Your task to perform on an android device: stop showing notifications on the lock screen Image 0: 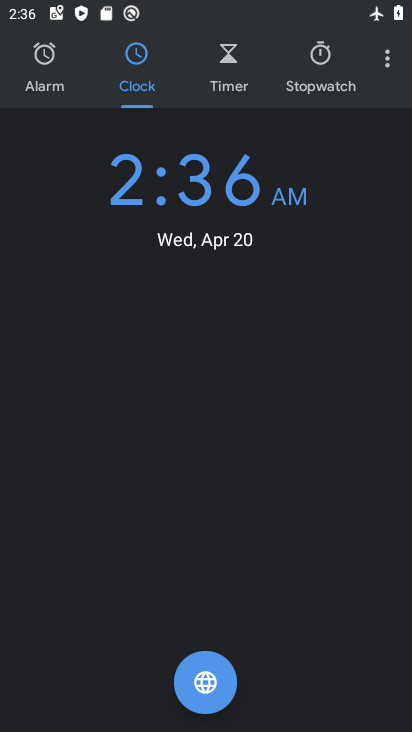
Step 0: press home button
Your task to perform on an android device: stop showing notifications on the lock screen Image 1: 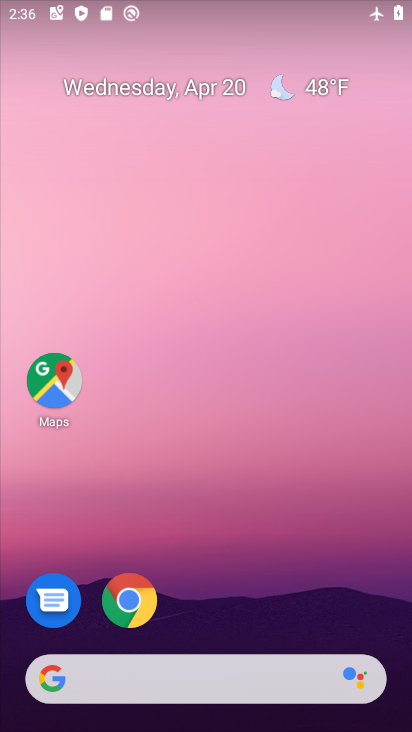
Step 1: drag from (331, 527) to (392, 69)
Your task to perform on an android device: stop showing notifications on the lock screen Image 2: 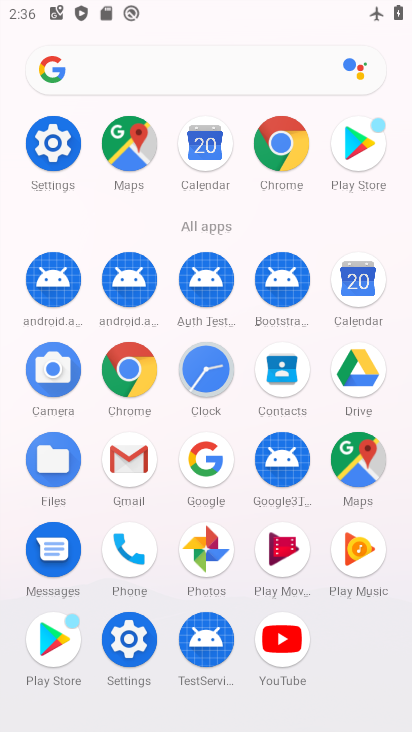
Step 2: click (47, 156)
Your task to perform on an android device: stop showing notifications on the lock screen Image 3: 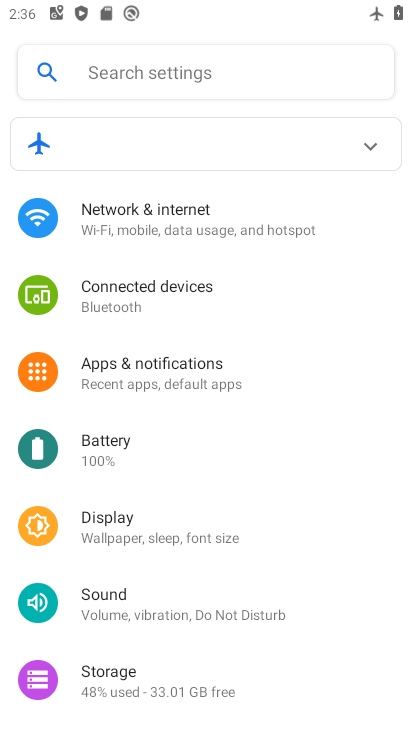
Step 3: click (209, 363)
Your task to perform on an android device: stop showing notifications on the lock screen Image 4: 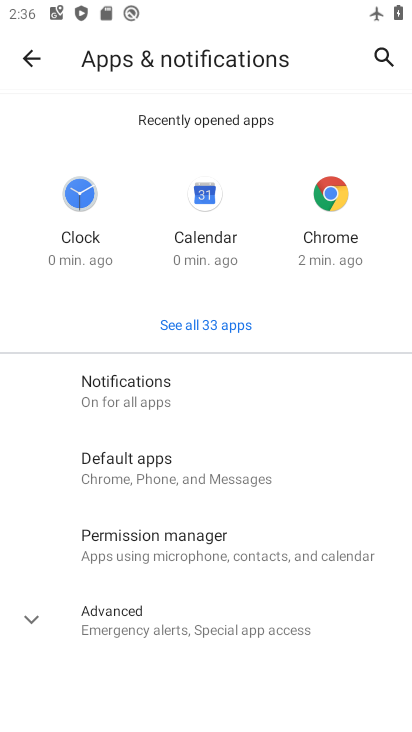
Step 4: drag from (201, 567) to (215, 329)
Your task to perform on an android device: stop showing notifications on the lock screen Image 5: 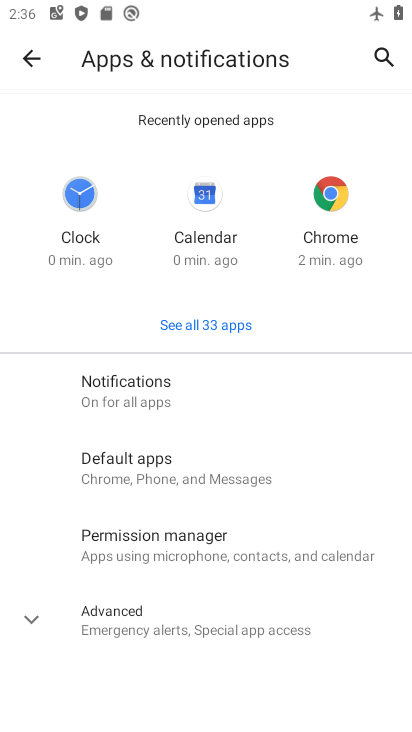
Step 5: click (133, 610)
Your task to perform on an android device: stop showing notifications on the lock screen Image 6: 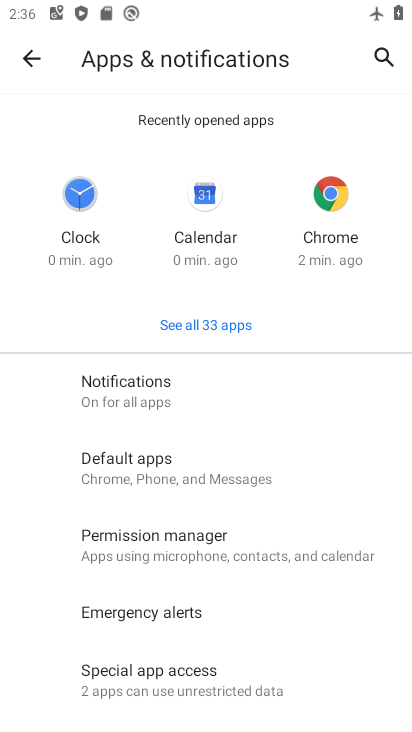
Step 6: drag from (135, 603) to (154, 420)
Your task to perform on an android device: stop showing notifications on the lock screen Image 7: 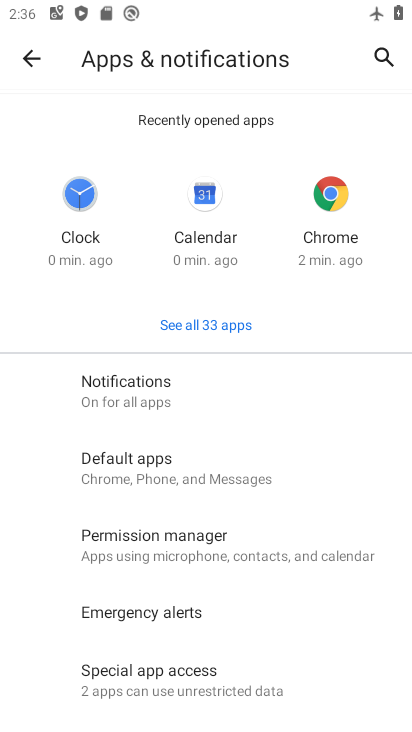
Step 7: drag from (155, 626) to (200, 371)
Your task to perform on an android device: stop showing notifications on the lock screen Image 8: 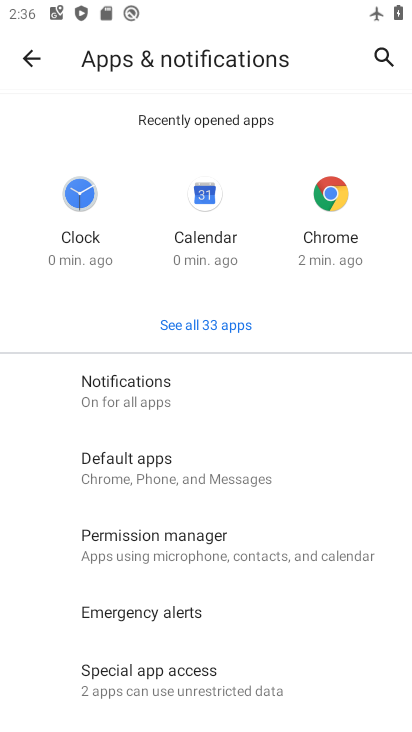
Step 8: click (150, 397)
Your task to perform on an android device: stop showing notifications on the lock screen Image 9: 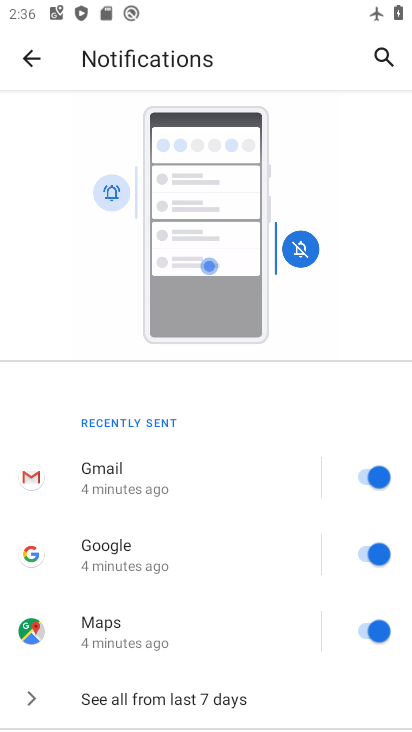
Step 9: drag from (225, 618) to (270, 303)
Your task to perform on an android device: stop showing notifications on the lock screen Image 10: 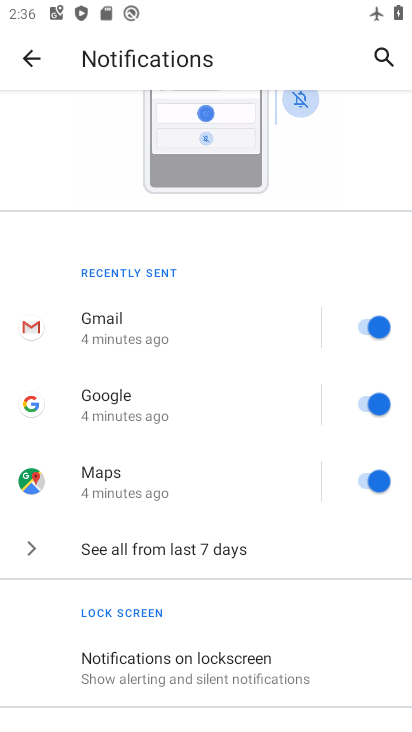
Step 10: drag from (178, 608) to (225, 316)
Your task to perform on an android device: stop showing notifications on the lock screen Image 11: 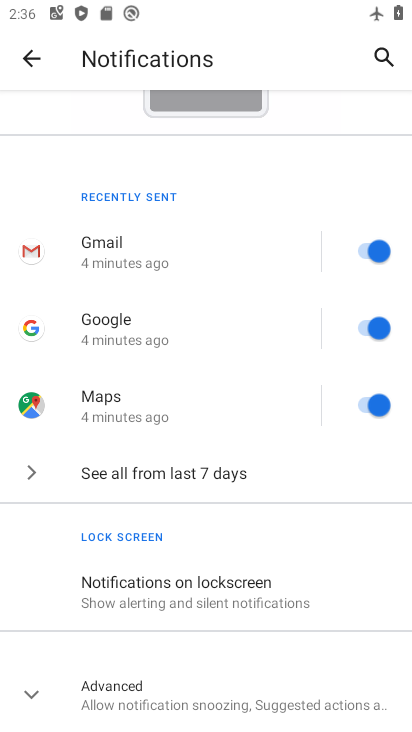
Step 11: click (183, 606)
Your task to perform on an android device: stop showing notifications on the lock screen Image 12: 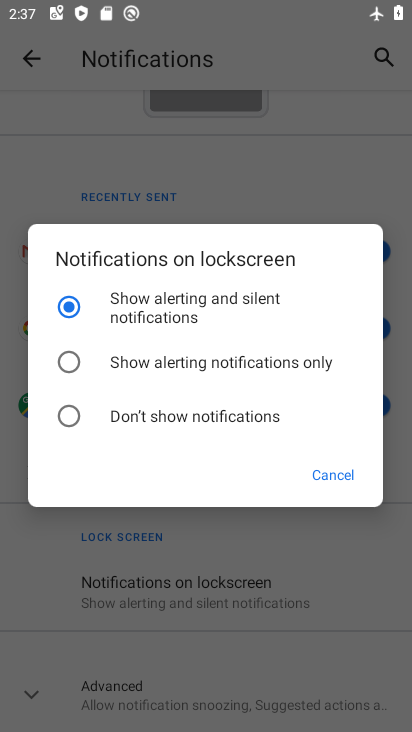
Step 12: click (72, 433)
Your task to perform on an android device: stop showing notifications on the lock screen Image 13: 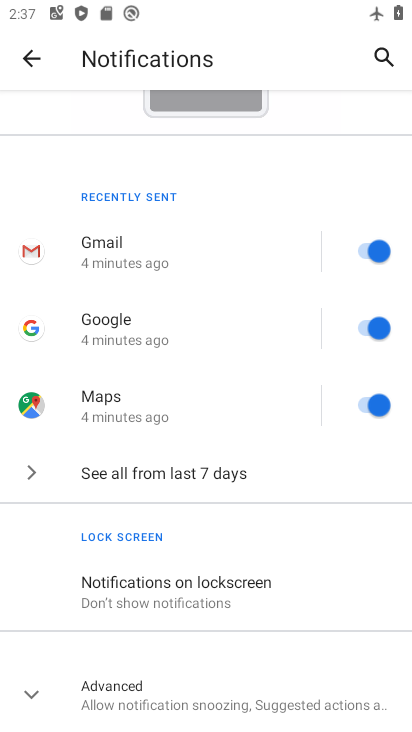
Step 13: task complete